Your task to perform on an android device: find which apps use the phone's location Image 0: 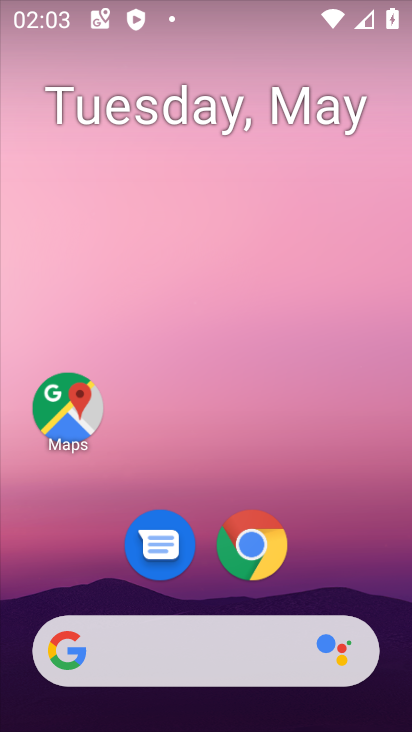
Step 0: press home button
Your task to perform on an android device: find which apps use the phone's location Image 1: 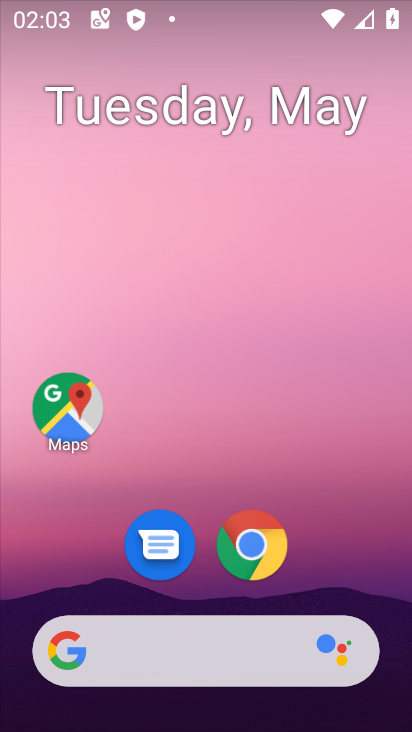
Step 1: drag from (393, 596) to (305, 135)
Your task to perform on an android device: find which apps use the phone's location Image 2: 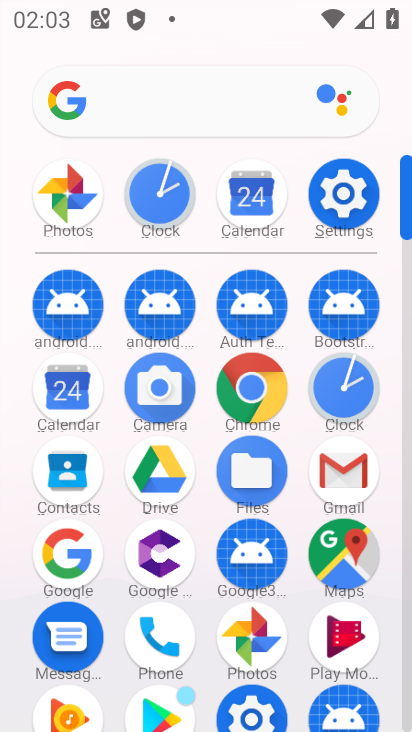
Step 2: click (407, 707)
Your task to perform on an android device: find which apps use the phone's location Image 3: 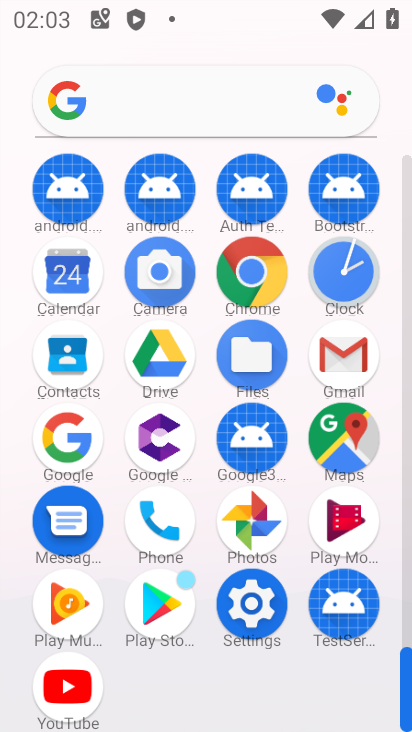
Step 3: click (252, 603)
Your task to perform on an android device: find which apps use the phone's location Image 4: 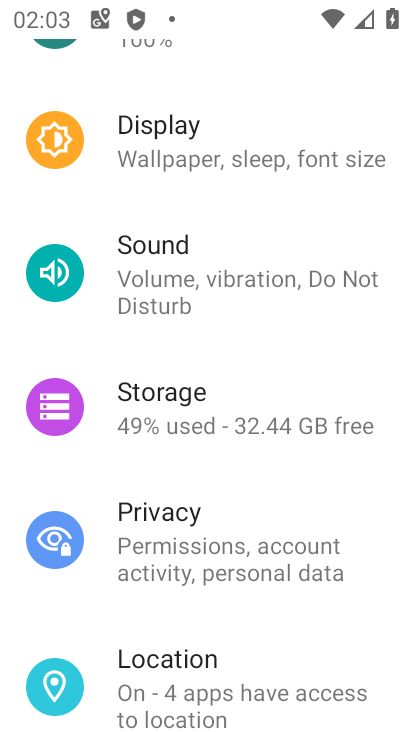
Step 4: drag from (364, 650) to (306, 236)
Your task to perform on an android device: find which apps use the phone's location Image 5: 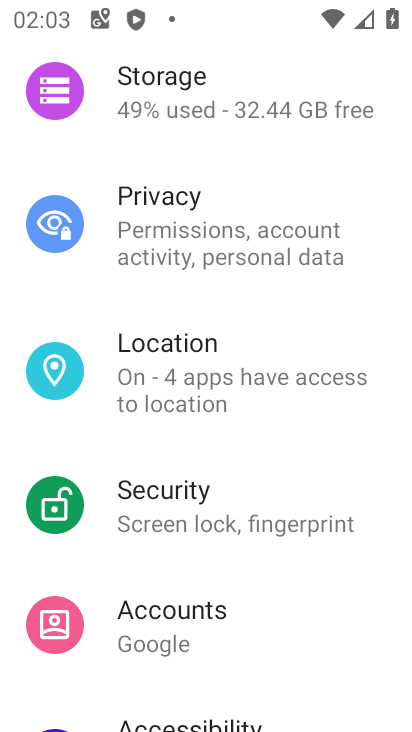
Step 5: click (172, 372)
Your task to perform on an android device: find which apps use the phone's location Image 6: 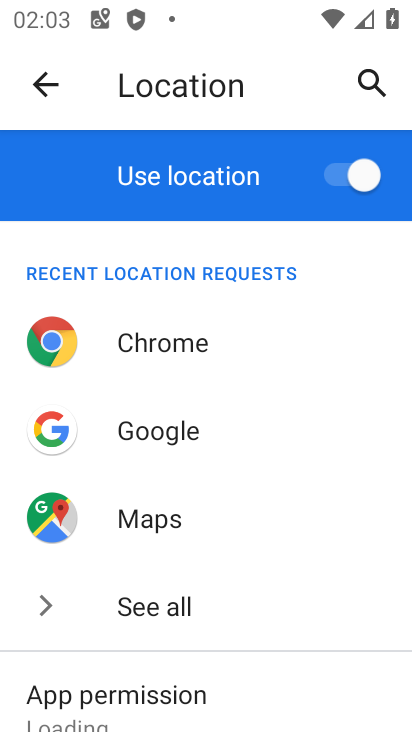
Step 6: drag from (351, 663) to (296, 163)
Your task to perform on an android device: find which apps use the phone's location Image 7: 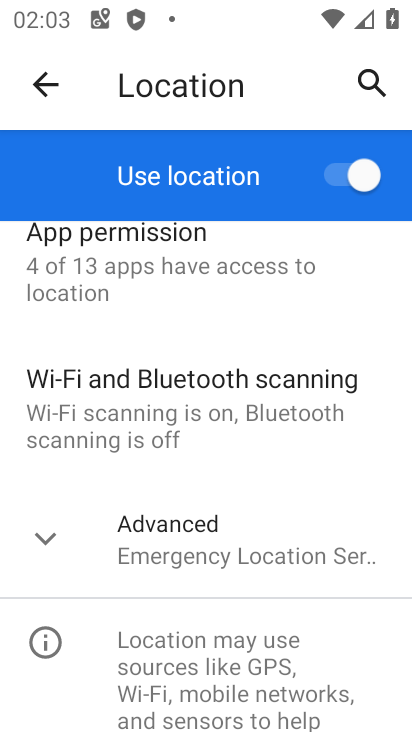
Step 7: click (95, 265)
Your task to perform on an android device: find which apps use the phone's location Image 8: 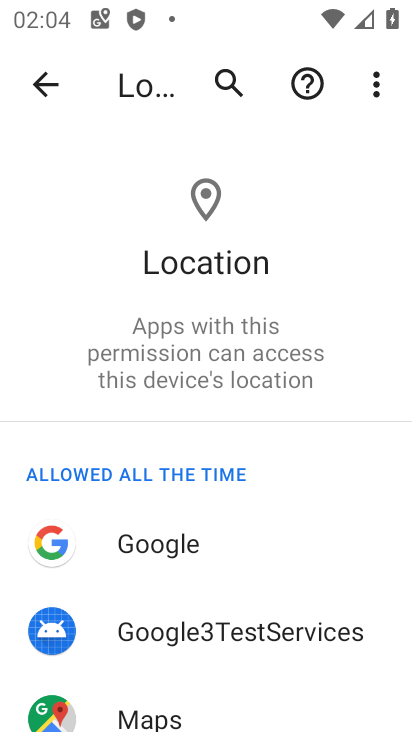
Step 8: drag from (324, 608) to (294, 63)
Your task to perform on an android device: find which apps use the phone's location Image 9: 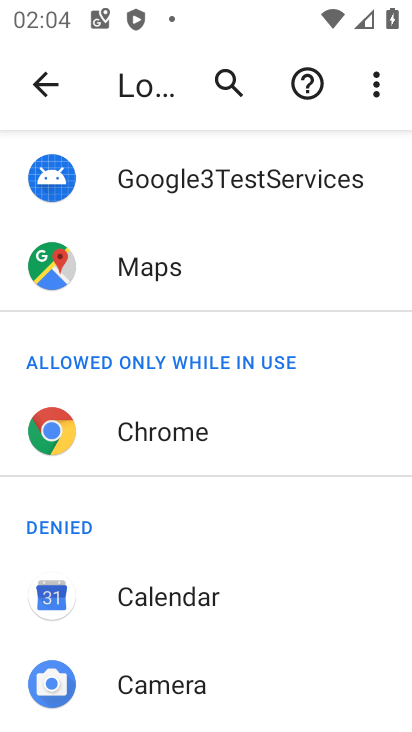
Step 9: drag from (289, 552) to (326, 157)
Your task to perform on an android device: find which apps use the phone's location Image 10: 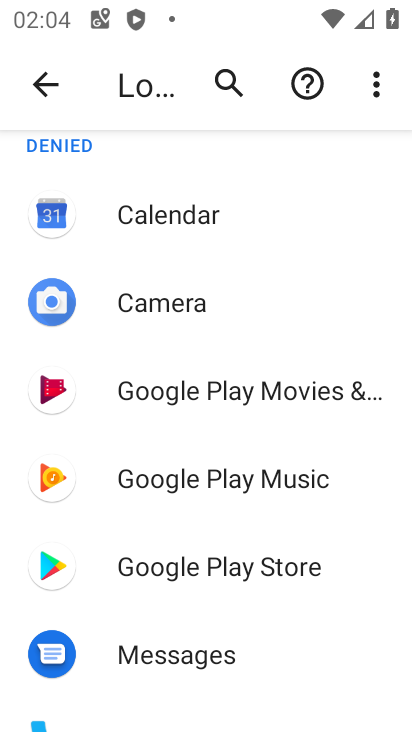
Step 10: drag from (332, 625) to (278, 225)
Your task to perform on an android device: find which apps use the phone's location Image 11: 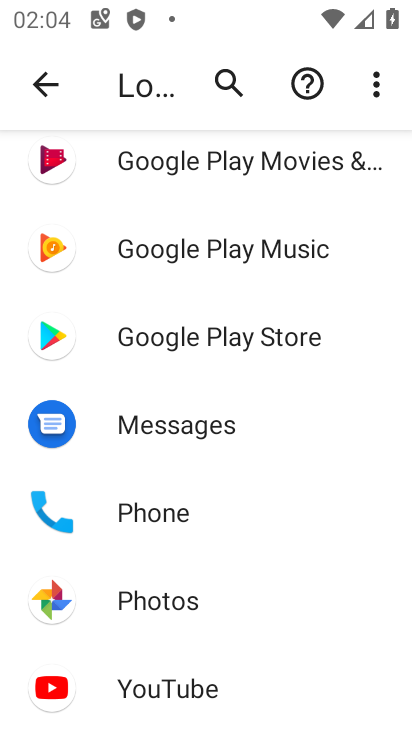
Step 11: click (143, 688)
Your task to perform on an android device: find which apps use the phone's location Image 12: 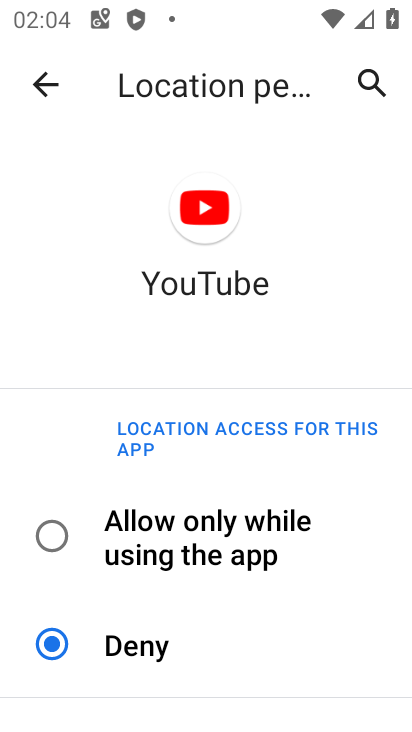
Step 12: task complete